Your task to perform on an android device: toggle sleep mode Image 0: 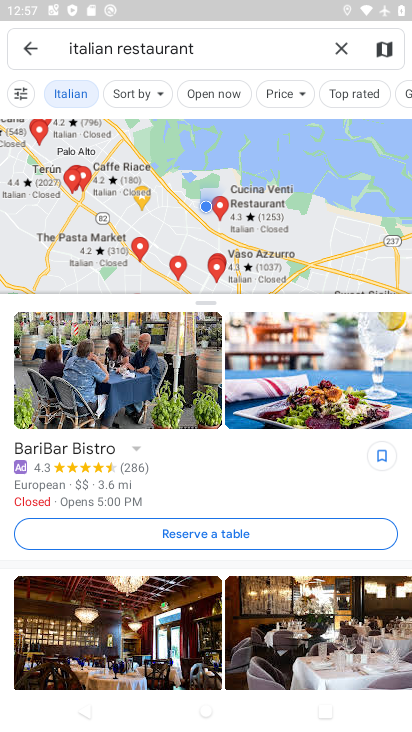
Step 0: task complete